Your task to perform on an android device: empty trash in the gmail app Image 0: 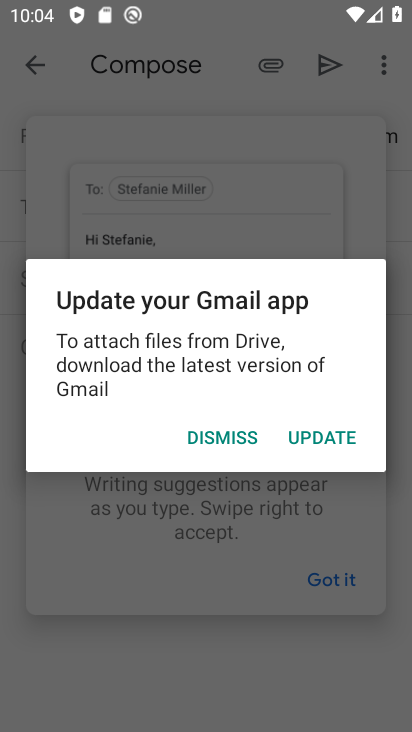
Step 0: press home button
Your task to perform on an android device: empty trash in the gmail app Image 1: 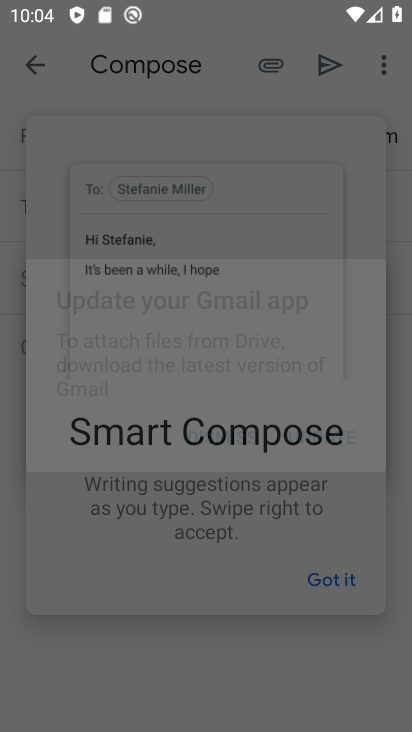
Step 1: press home button
Your task to perform on an android device: empty trash in the gmail app Image 2: 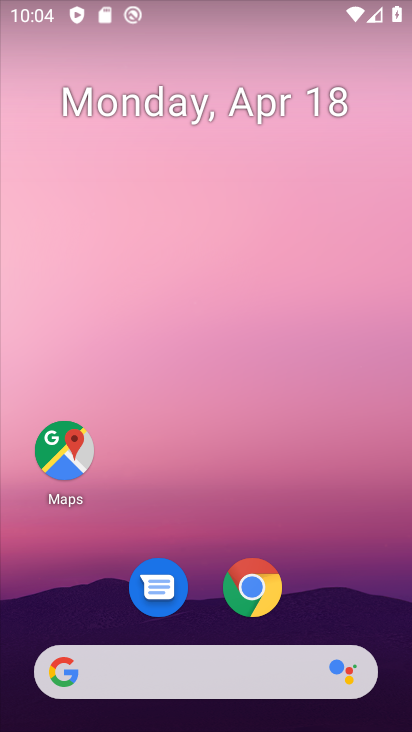
Step 2: drag from (305, 540) to (136, 98)
Your task to perform on an android device: empty trash in the gmail app Image 3: 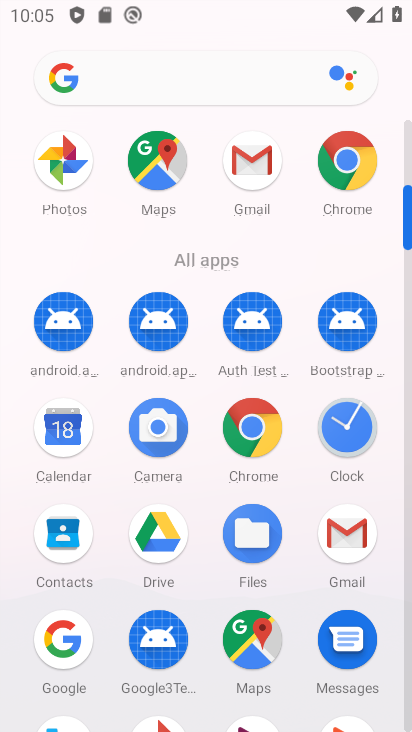
Step 3: click (262, 173)
Your task to perform on an android device: empty trash in the gmail app Image 4: 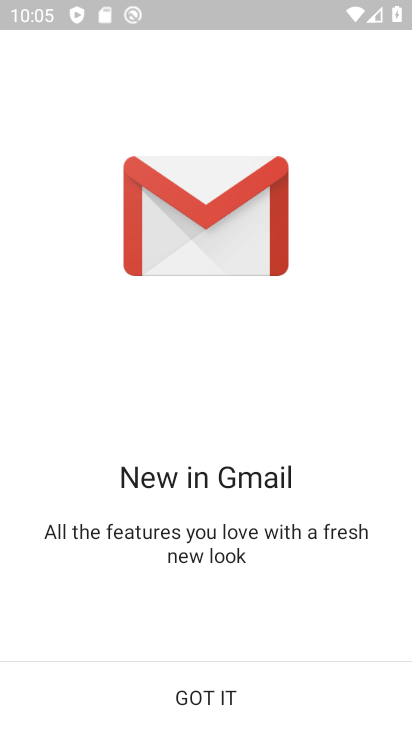
Step 4: click (215, 705)
Your task to perform on an android device: empty trash in the gmail app Image 5: 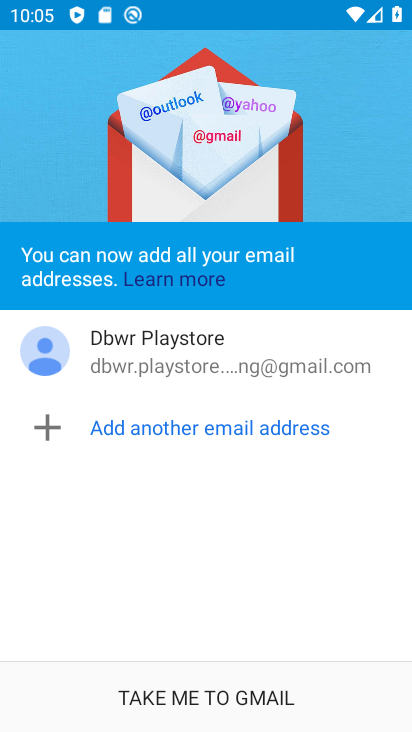
Step 5: click (216, 685)
Your task to perform on an android device: empty trash in the gmail app Image 6: 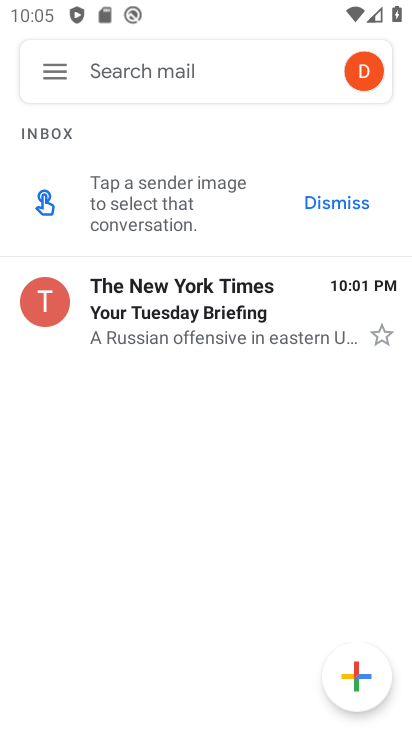
Step 6: click (48, 66)
Your task to perform on an android device: empty trash in the gmail app Image 7: 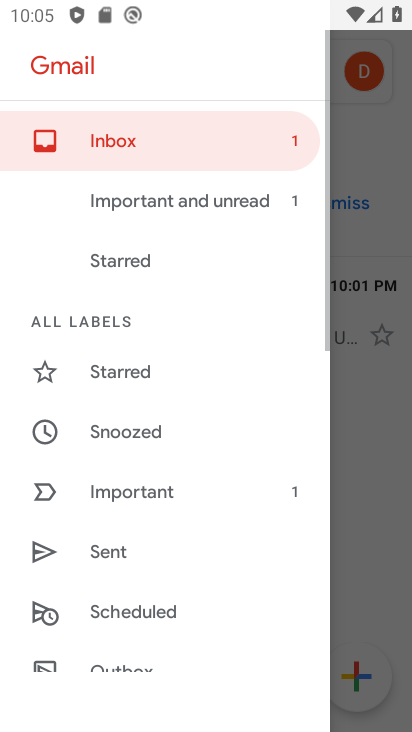
Step 7: drag from (186, 580) to (192, 243)
Your task to perform on an android device: empty trash in the gmail app Image 8: 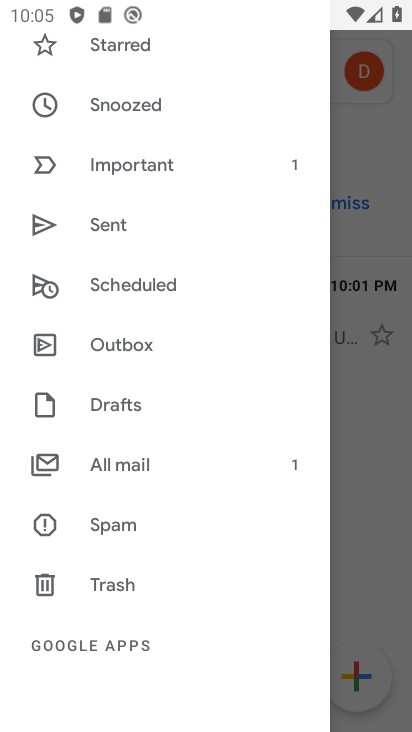
Step 8: click (118, 582)
Your task to perform on an android device: empty trash in the gmail app Image 9: 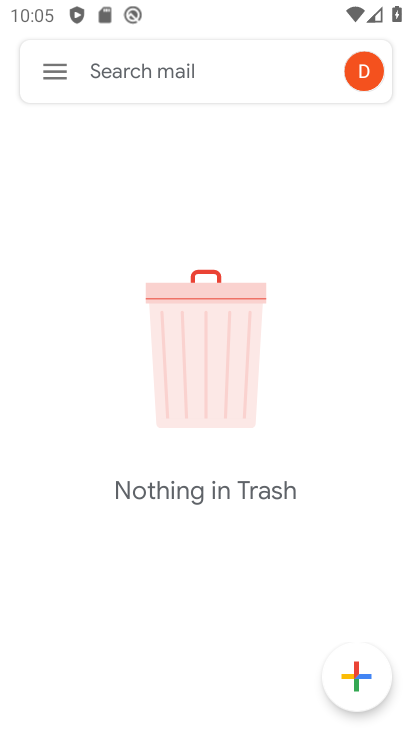
Step 9: task complete